Your task to perform on an android device: choose inbox layout in the gmail app Image 0: 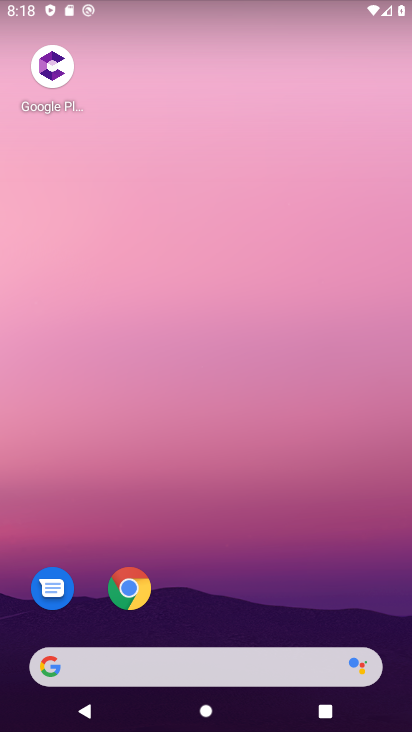
Step 0: drag from (225, 611) to (200, 154)
Your task to perform on an android device: choose inbox layout in the gmail app Image 1: 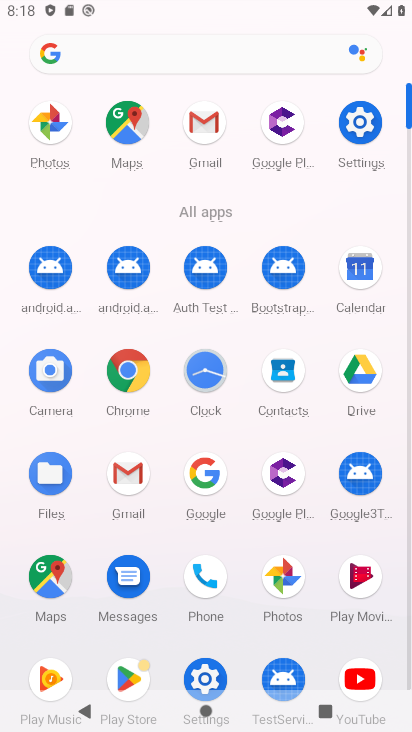
Step 1: click (203, 144)
Your task to perform on an android device: choose inbox layout in the gmail app Image 2: 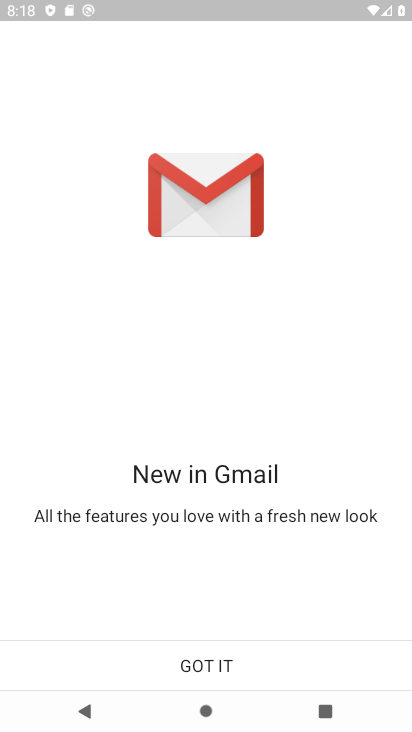
Step 2: click (200, 114)
Your task to perform on an android device: choose inbox layout in the gmail app Image 3: 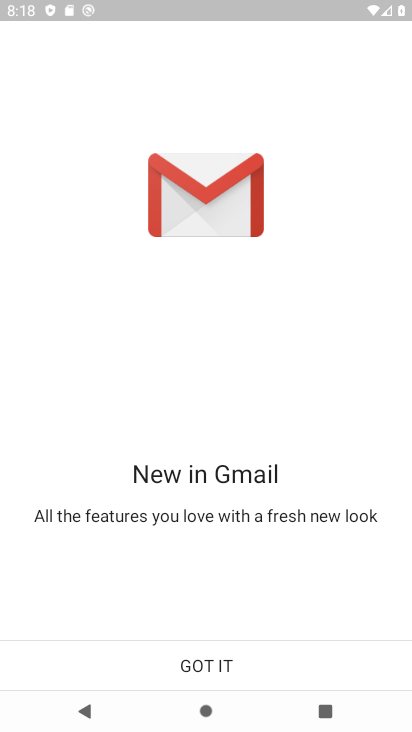
Step 3: click (186, 662)
Your task to perform on an android device: choose inbox layout in the gmail app Image 4: 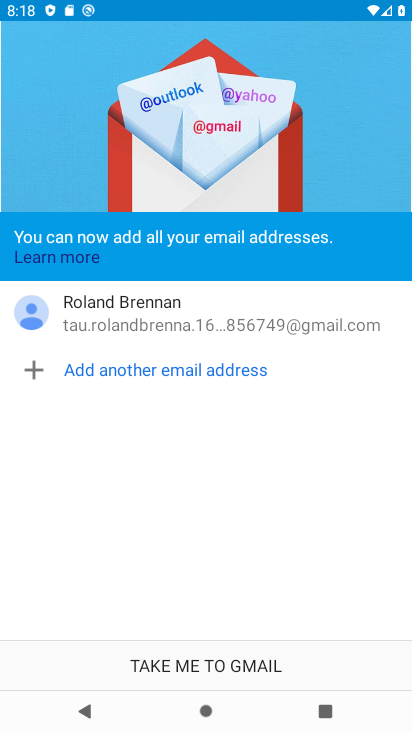
Step 4: click (186, 662)
Your task to perform on an android device: choose inbox layout in the gmail app Image 5: 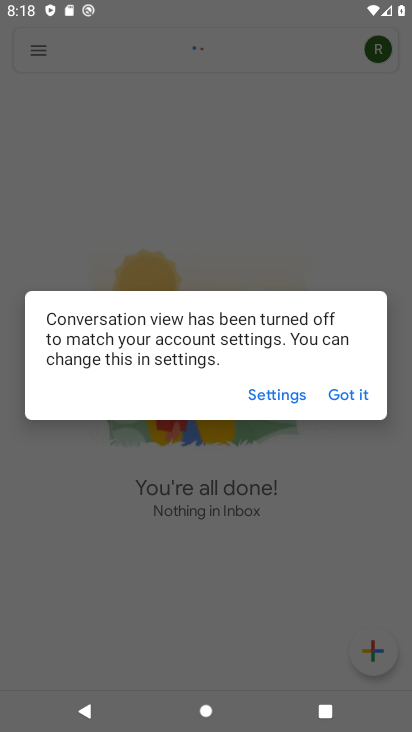
Step 5: click (348, 392)
Your task to perform on an android device: choose inbox layout in the gmail app Image 6: 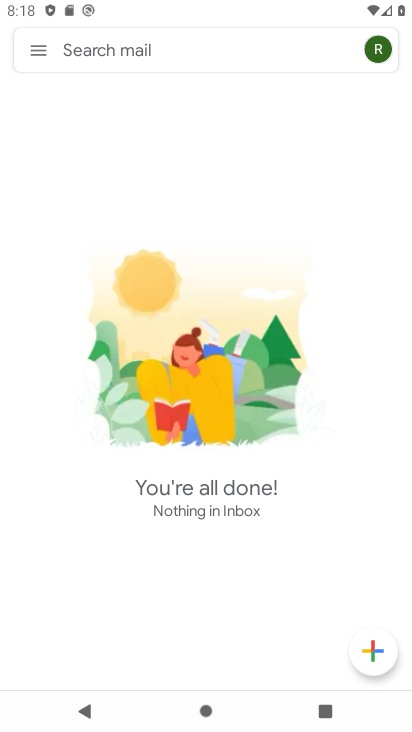
Step 6: click (30, 58)
Your task to perform on an android device: choose inbox layout in the gmail app Image 7: 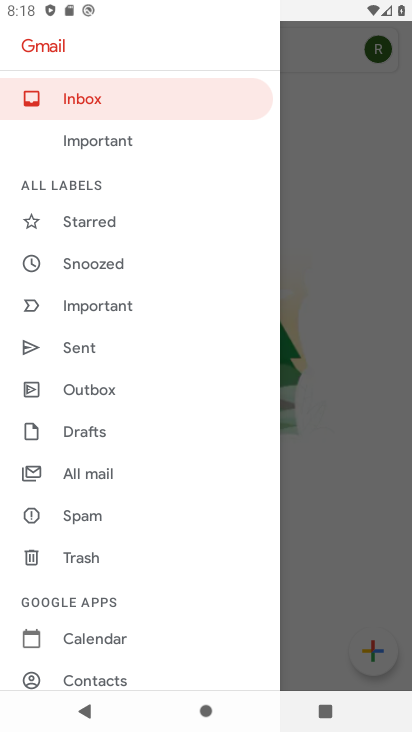
Step 7: drag from (124, 664) to (93, 271)
Your task to perform on an android device: choose inbox layout in the gmail app Image 8: 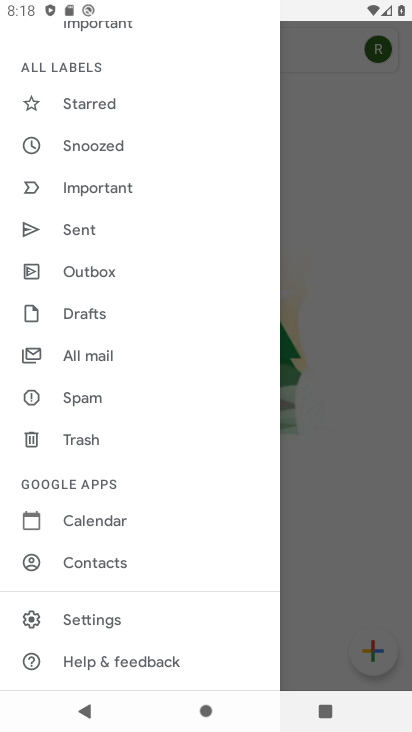
Step 8: click (87, 624)
Your task to perform on an android device: choose inbox layout in the gmail app Image 9: 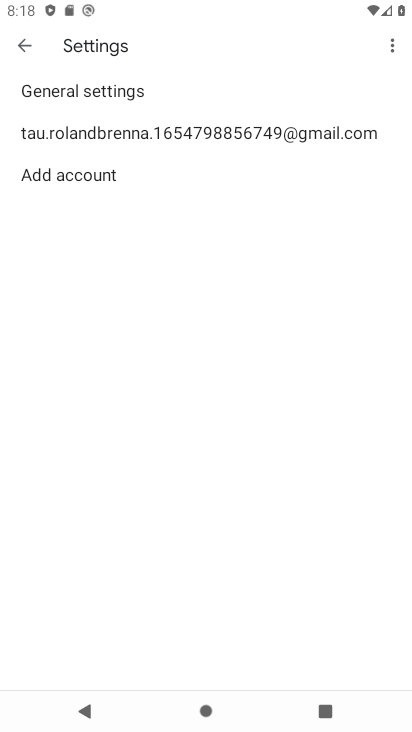
Step 9: click (201, 126)
Your task to perform on an android device: choose inbox layout in the gmail app Image 10: 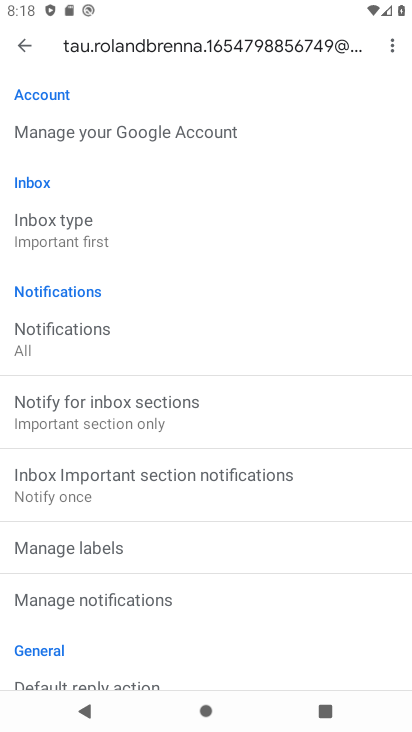
Step 10: click (173, 224)
Your task to perform on an android device: choose inbox layout in the gmail app Image 11: 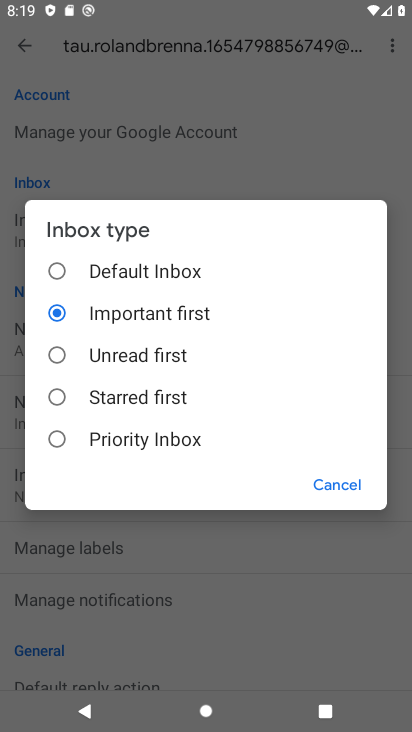
Step 11: click (136, 357)
Your task to perform on an android device: choose inbox layout in the gmail app Image 12: 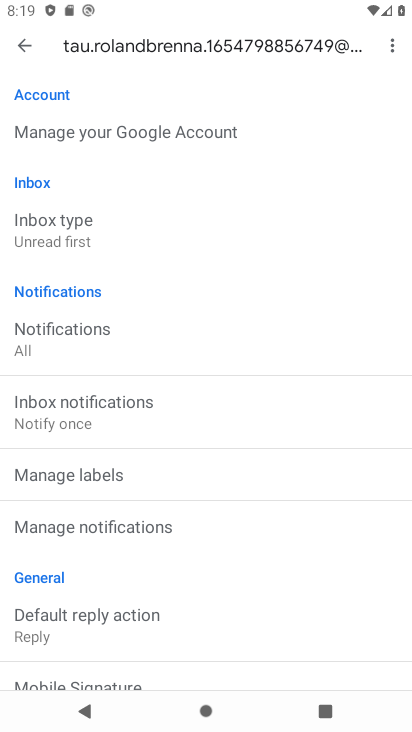
Step 12: task complete